Your task to perform on an android device: toggle priority inbox in the gmail app Image 0: 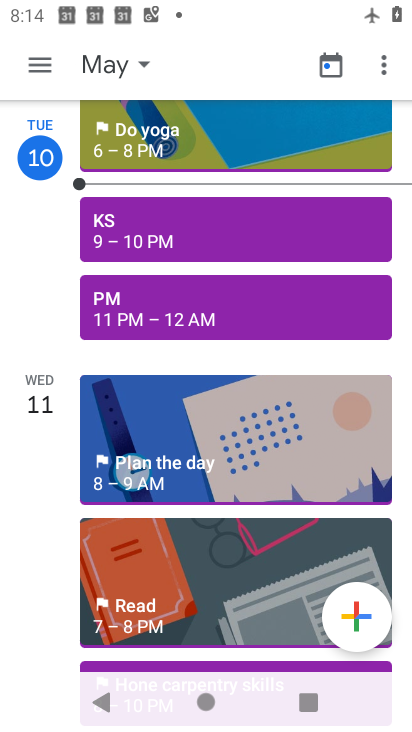
Step 0: press back button
Your task to perform on an android device: toggle priority inbox in the gmail app Image 1: 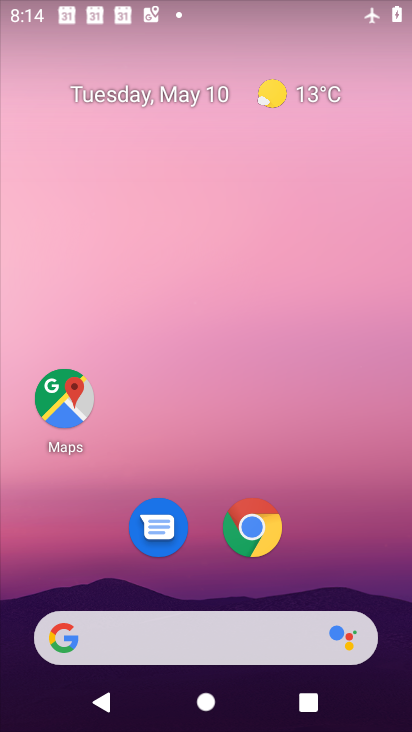
Step 1: drag from (27, 618) to (293, 212)
Your task to perform on an android device: toggle priority inbox in the gmail app Image 2: 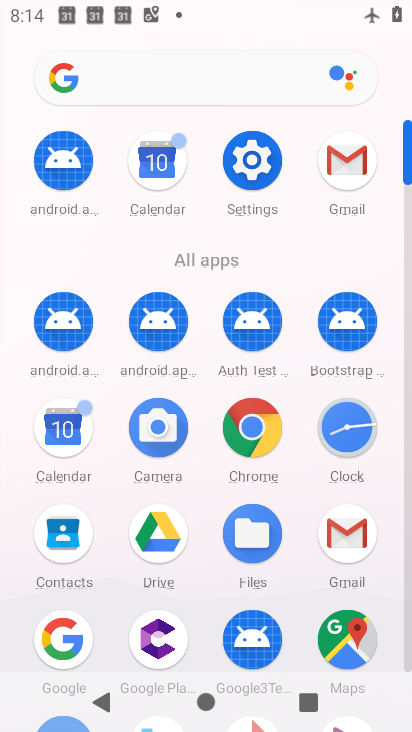
Step 2: click (336, 538)
Your task to perform on an android device: toggle priority inbox in the gmail app Image 3: 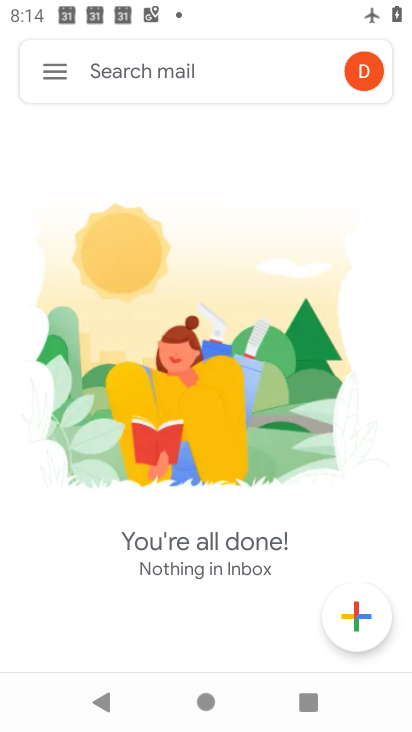
Step 3: click (50, 72)
Your task to perform on an android device: toggle priority inbox in the gmail app Image 4: 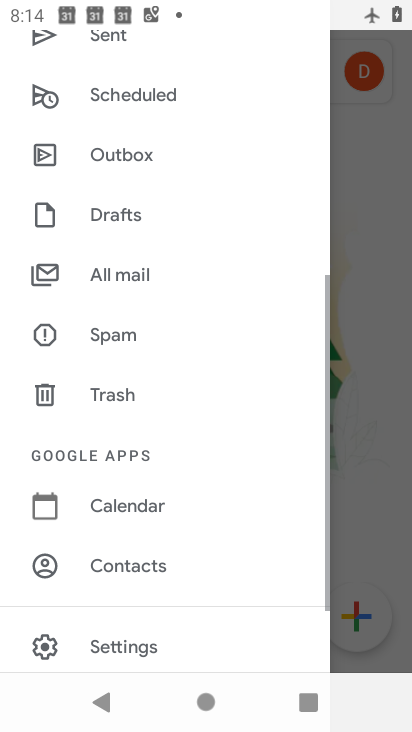
Step 4: drag from (140, 74) to (92, 578)
Your task to perform on an android device: toggle priority inbox in the gmail app Image 5: 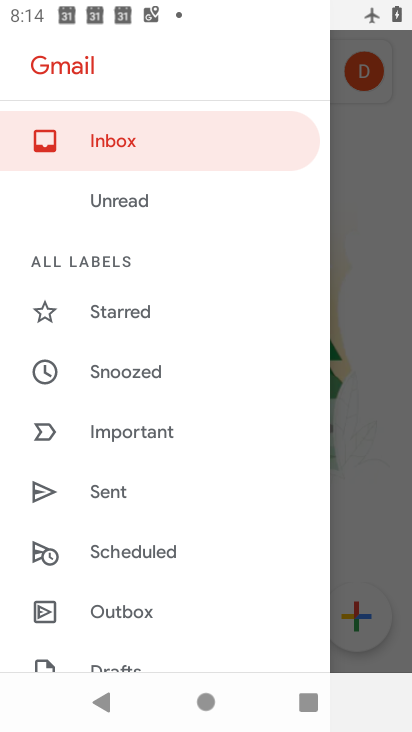
Step 5: click (138, 129)
Your task to perform on an android device: toggle priority inbox in the gmail app Image 6: 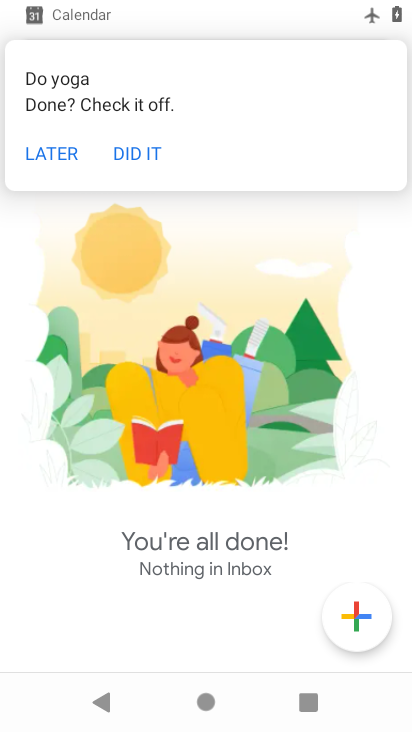
Step 6: click (42, 150)
Your task to perform on an android device: toggle priority inbox in the gmail app Image 7: 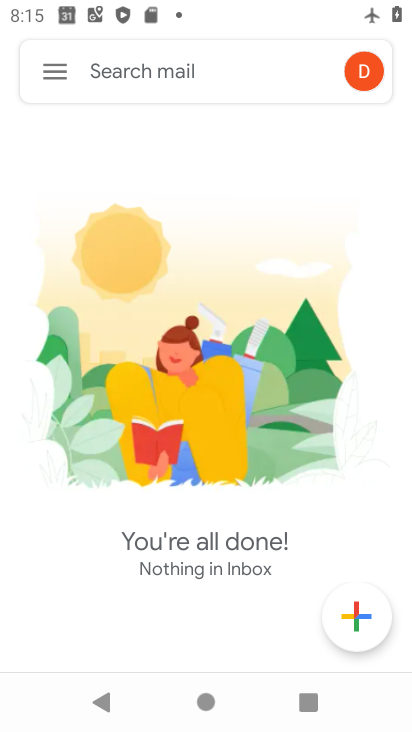
Step 7: task complete